Your task to perform on an android device: toggle data saver in the chrome app Image 0: 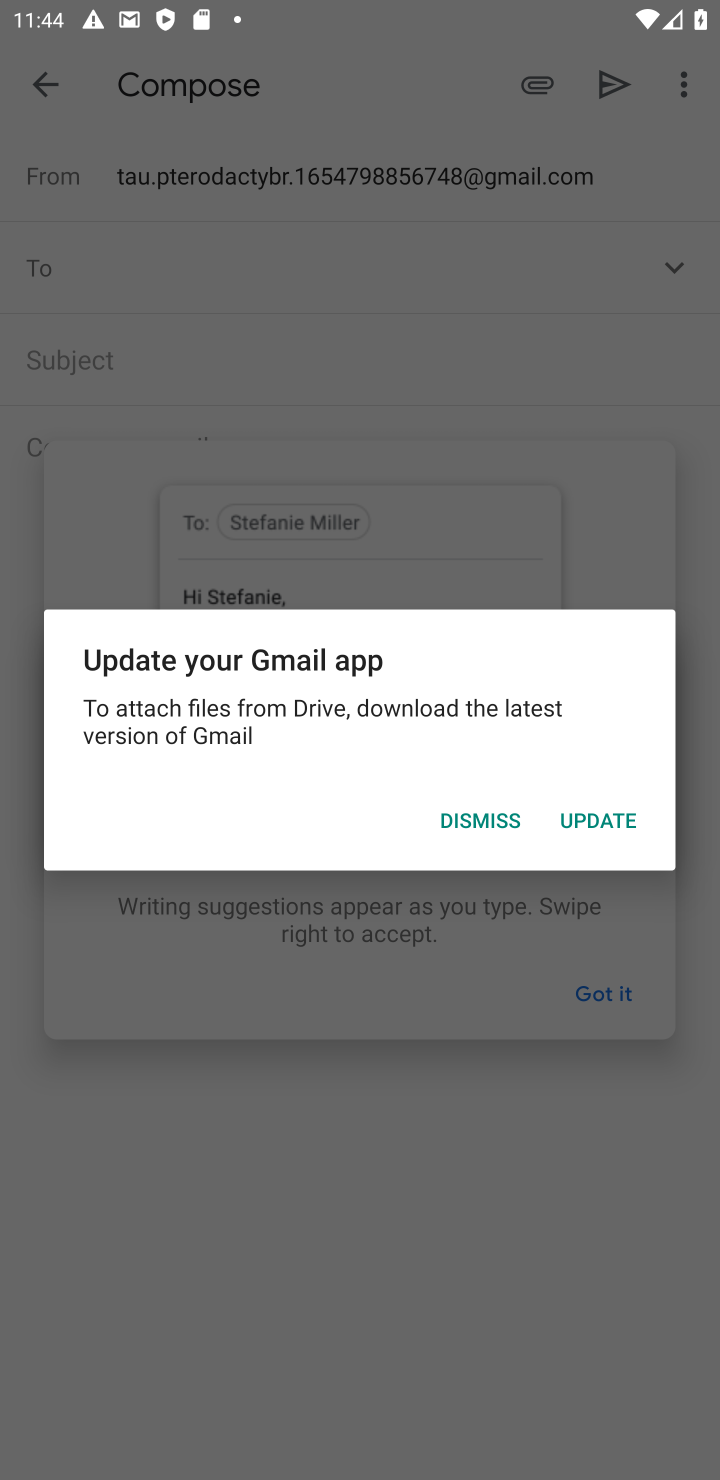
Step 0: press home button
Your task to perform on an android device: toggle data saver in the chrome app Image 1: 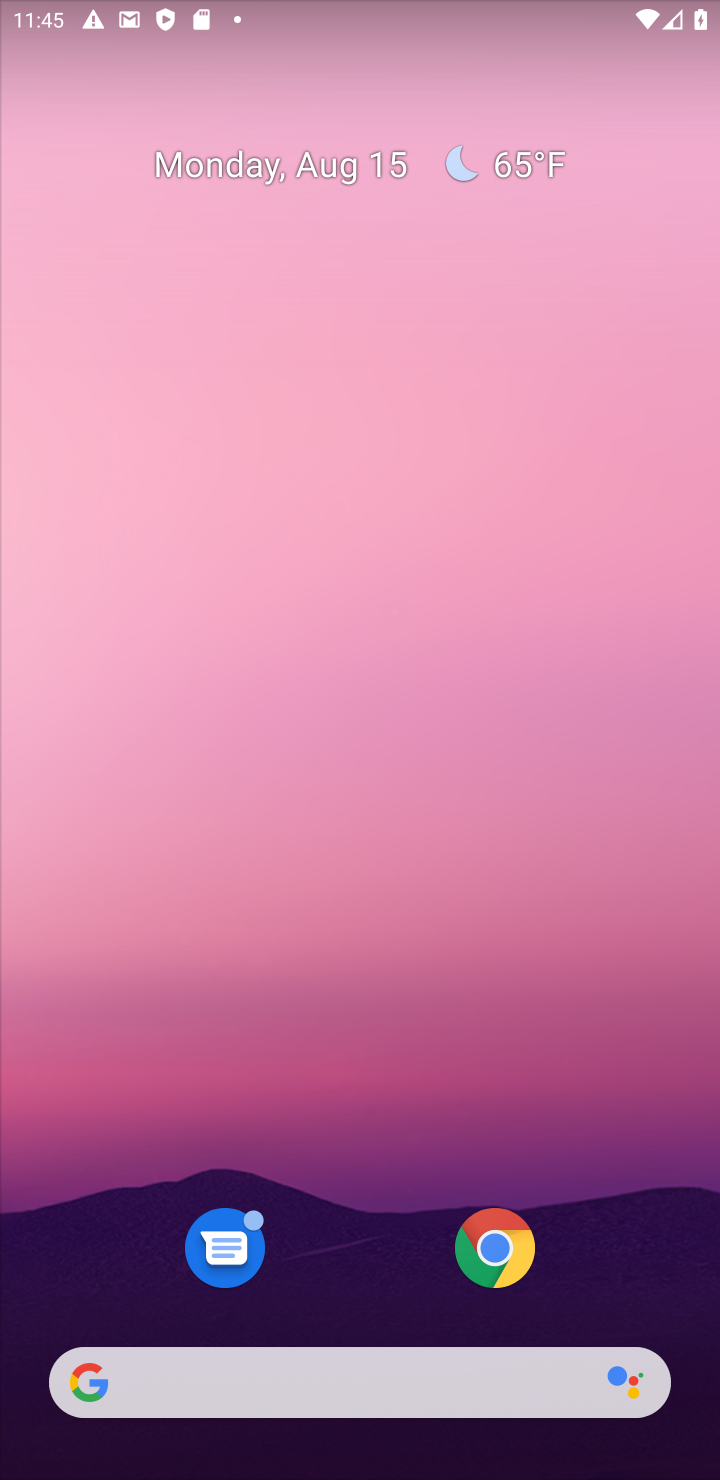
Step 1: click (481, 1225)
Your task to perform on an android device: toggle data saver in the chrome app Image 2: 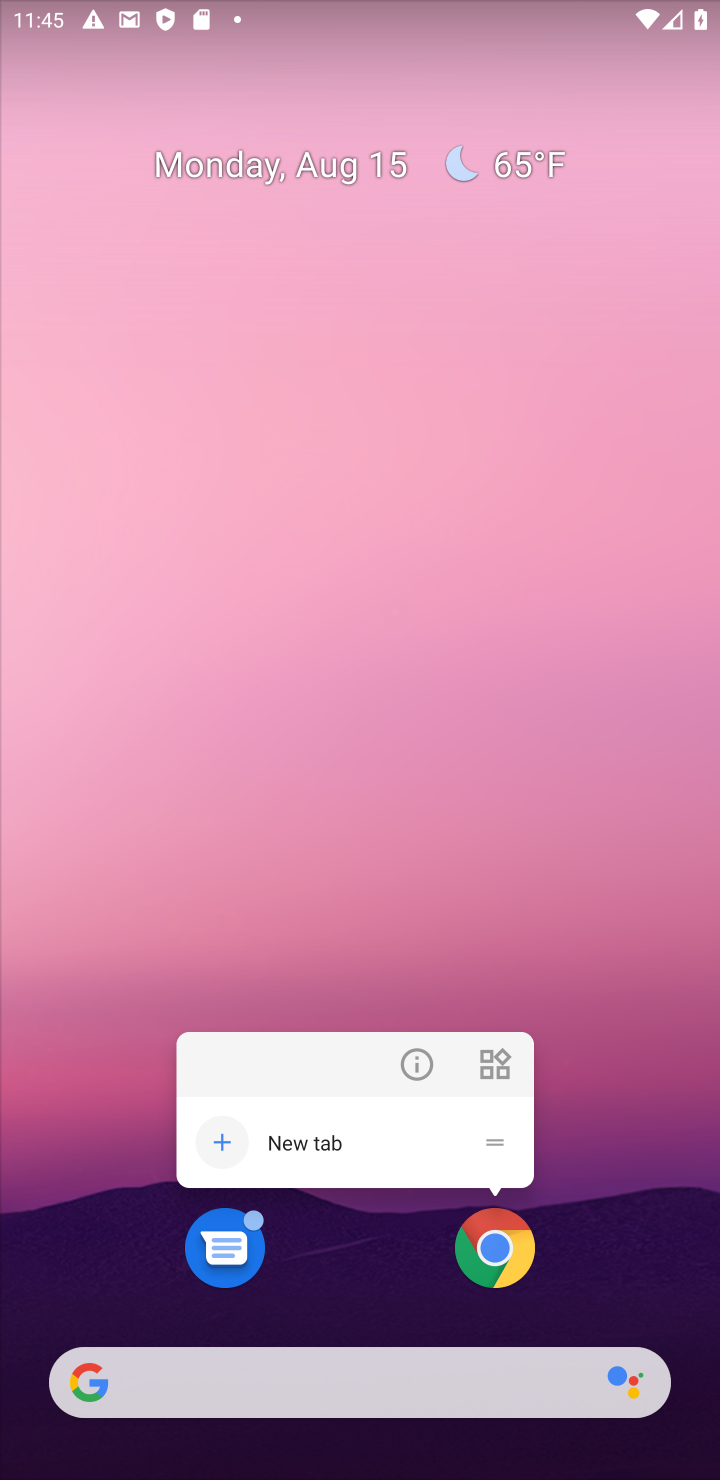
Step 2: click (481, 1225)
Your task to perform on an android device: toggle data saver in the chrome app Image 3: 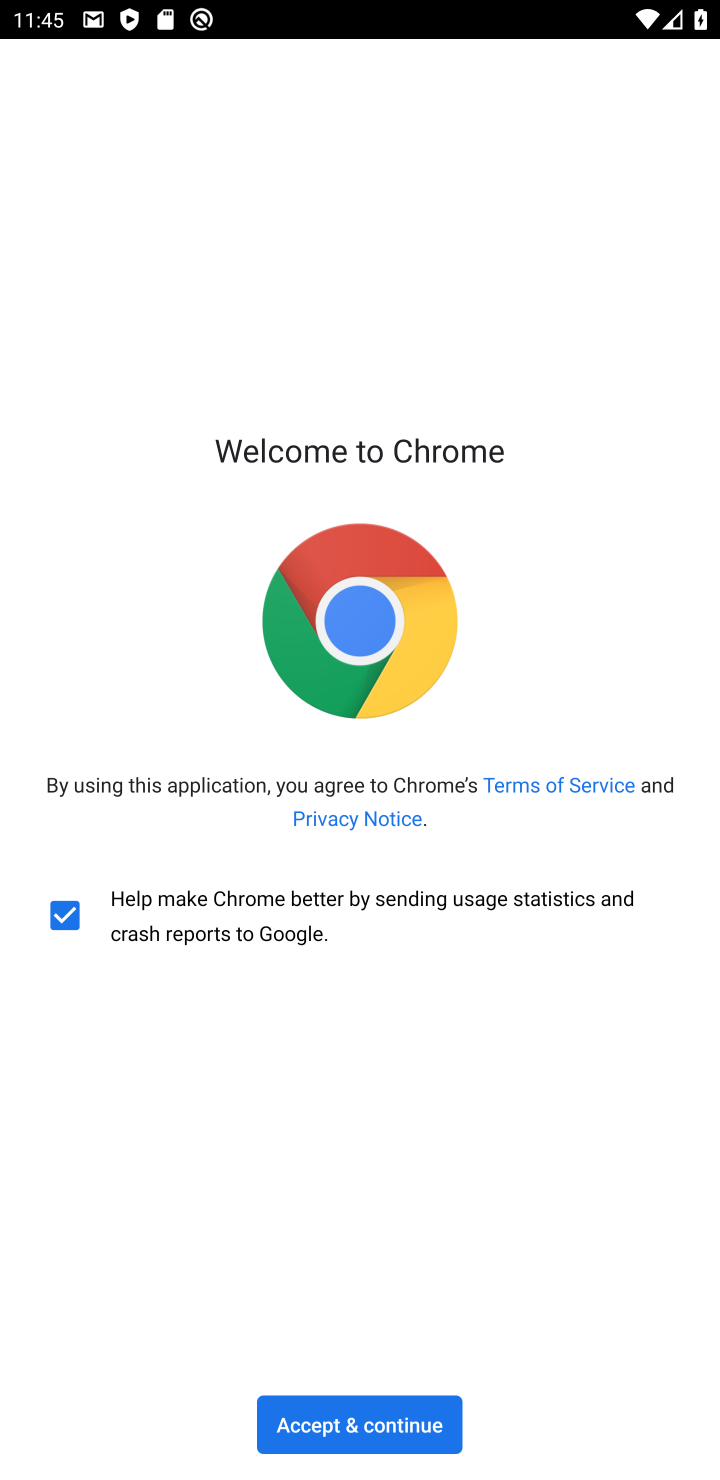
Step 3: click (314, 1395)
Your task to perform on an android device: toggle data saver in the chrome app Image 4: 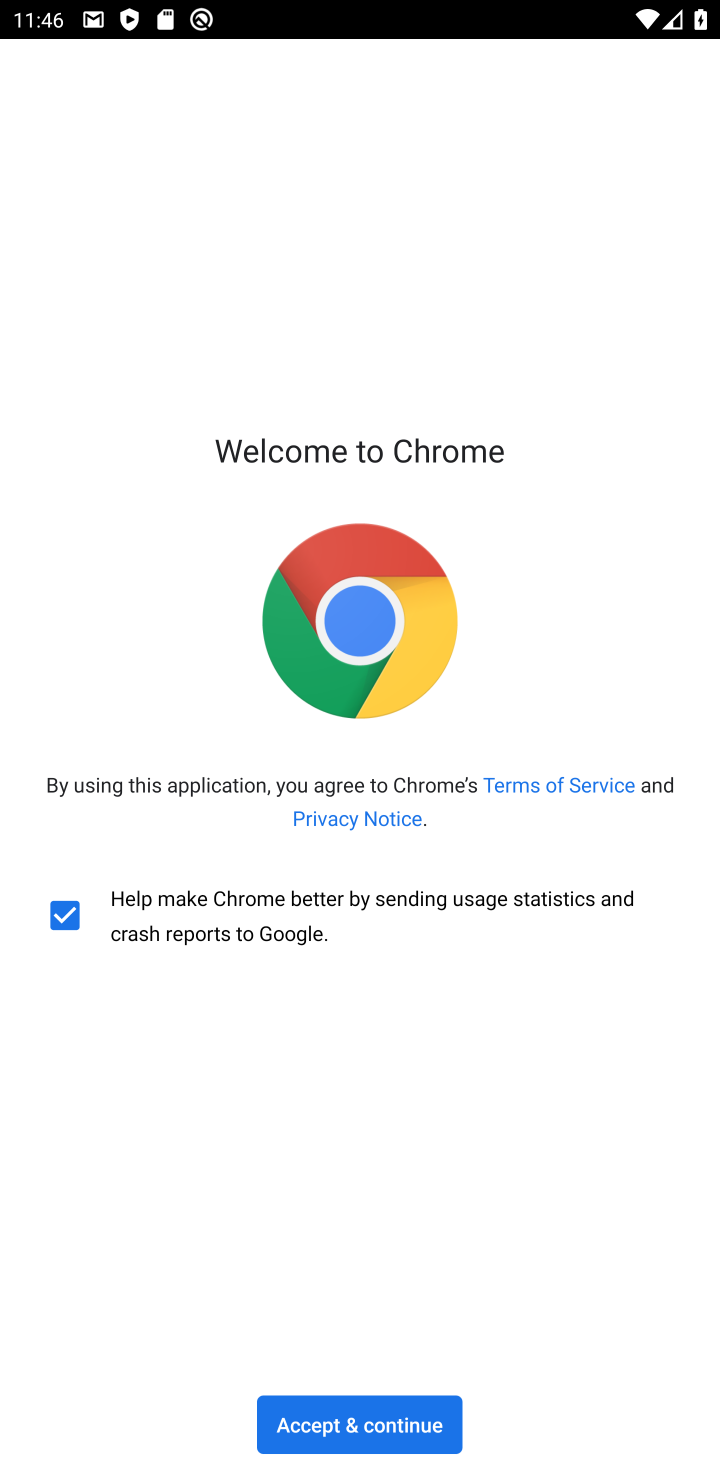
Step 4: click (317, 1427)
Your task to perform on an android device: toggle data saver in the chrome app Image 5: 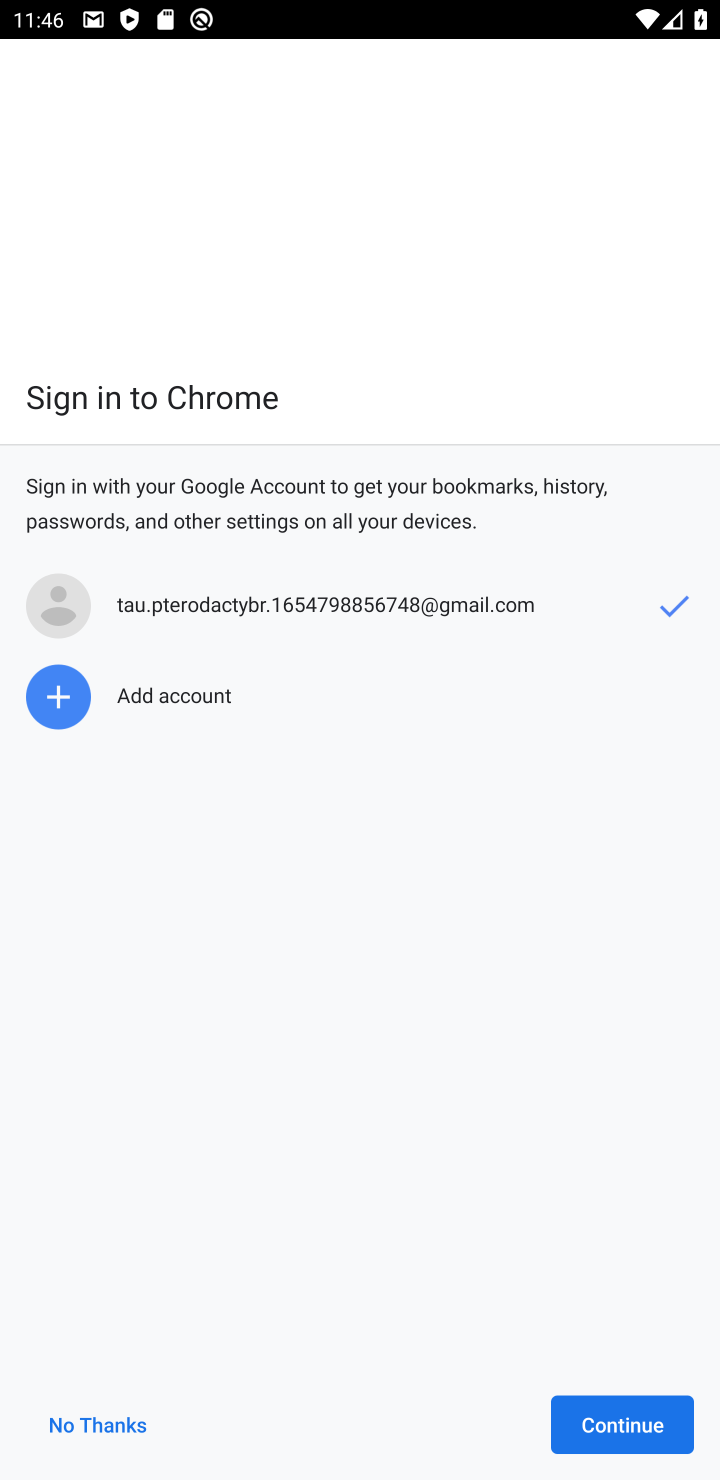
Step 5: click (566, 1435)
Your task to perform on an android device: toggle data saver in the chrome app Image 6: 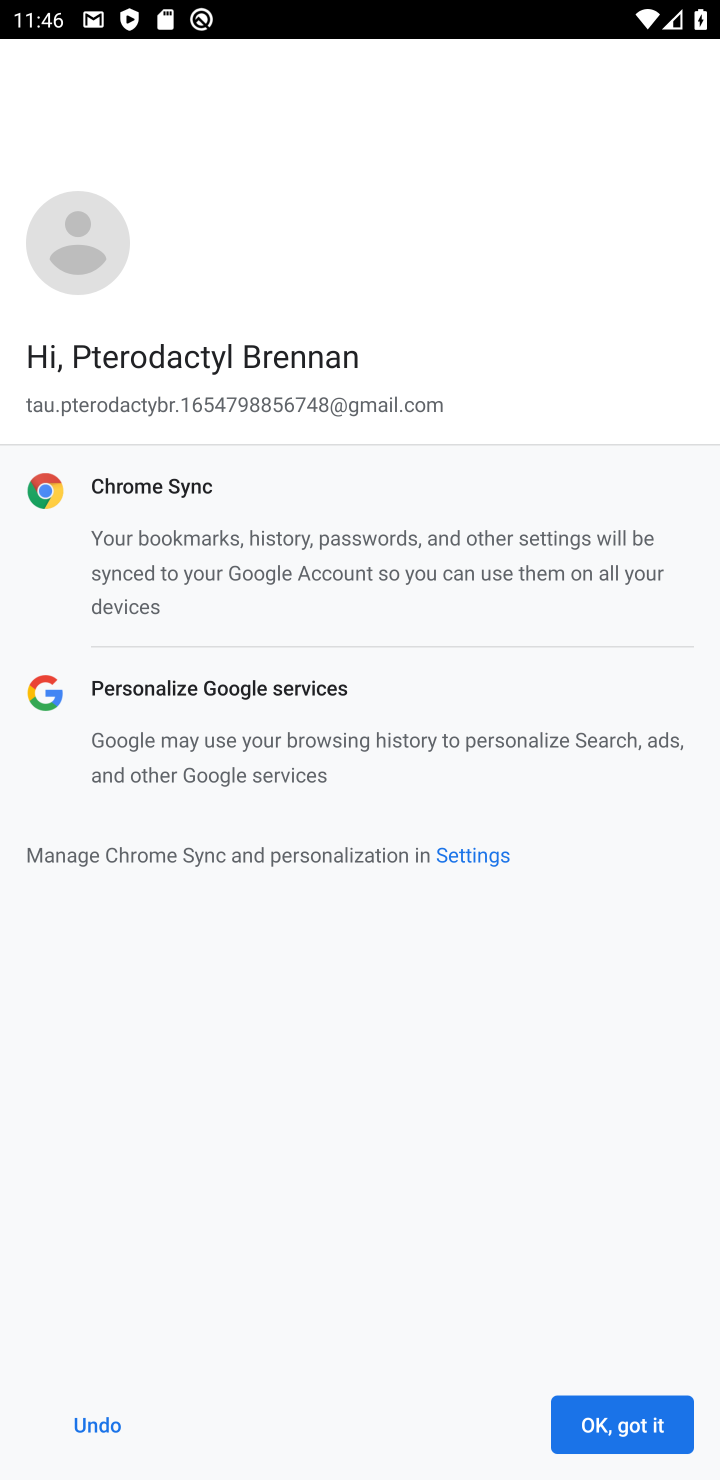
Step 6: click (670, 1410)
Your task to perform on an android device: toggle data saver in the chrome app Image 7: 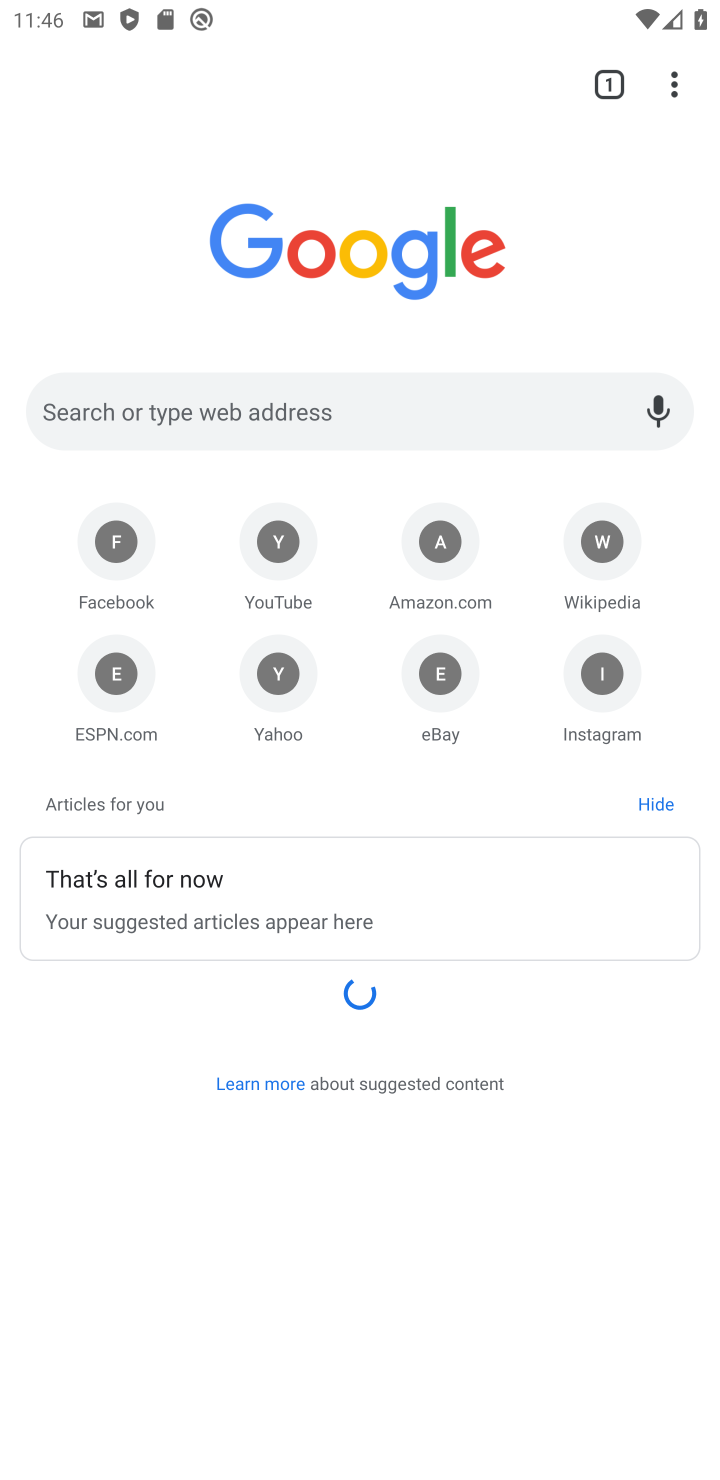
Step 7: click (674, 93)
Your task to perform on an android device: toggle data saver in the chrome app Image 8: 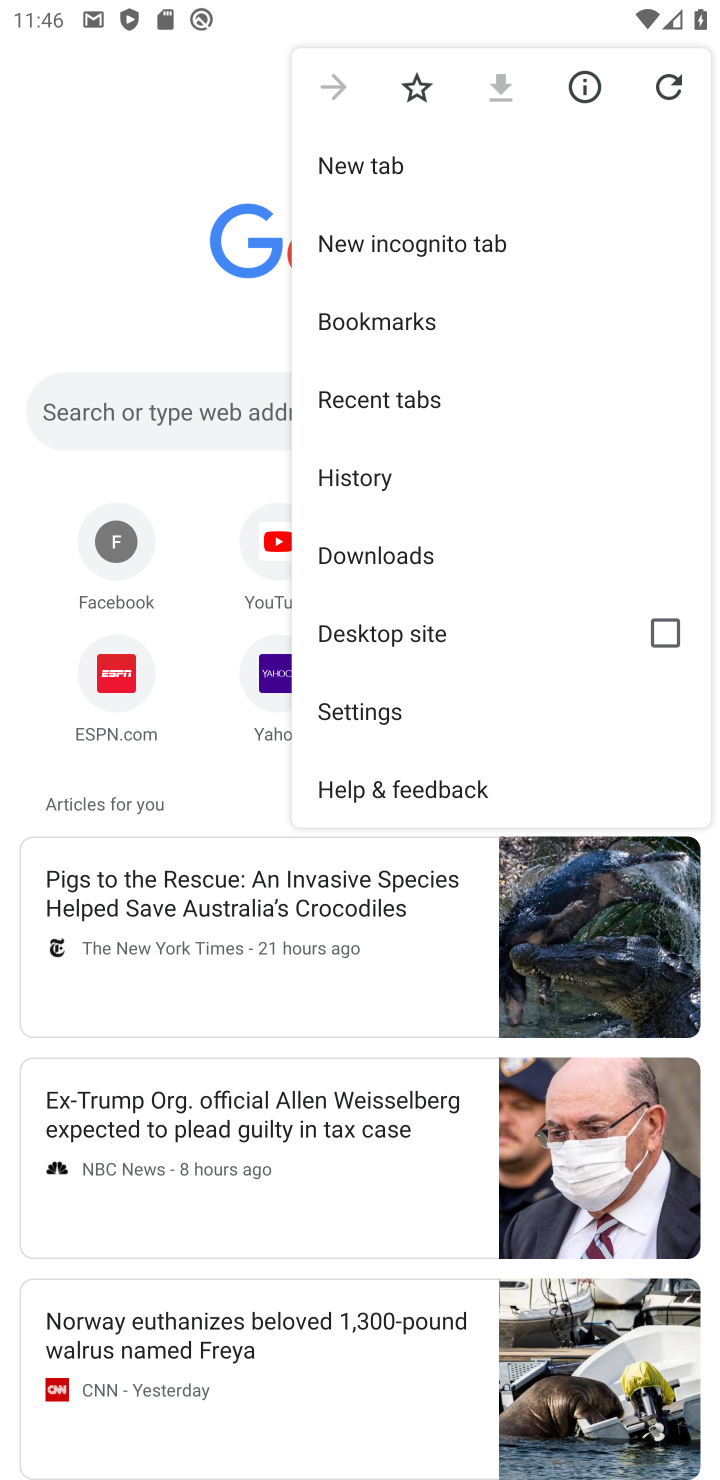
Step 8: click (458, 692)
Your task to perform on an android device: toggle data saver in the chrome app Image 9: 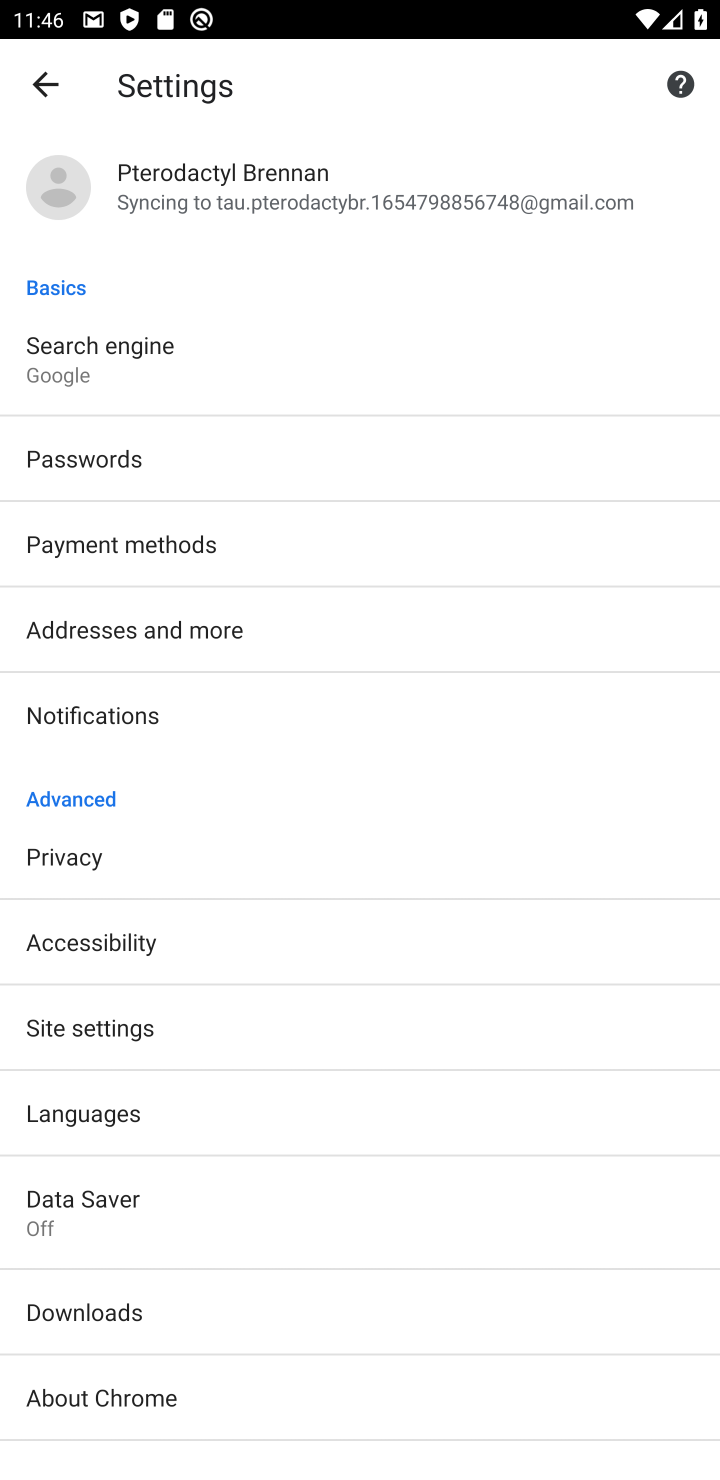
Step 9: click (169, 1249)
Your task to perform on an android device: toggle data saver in the chrome app Image 10: 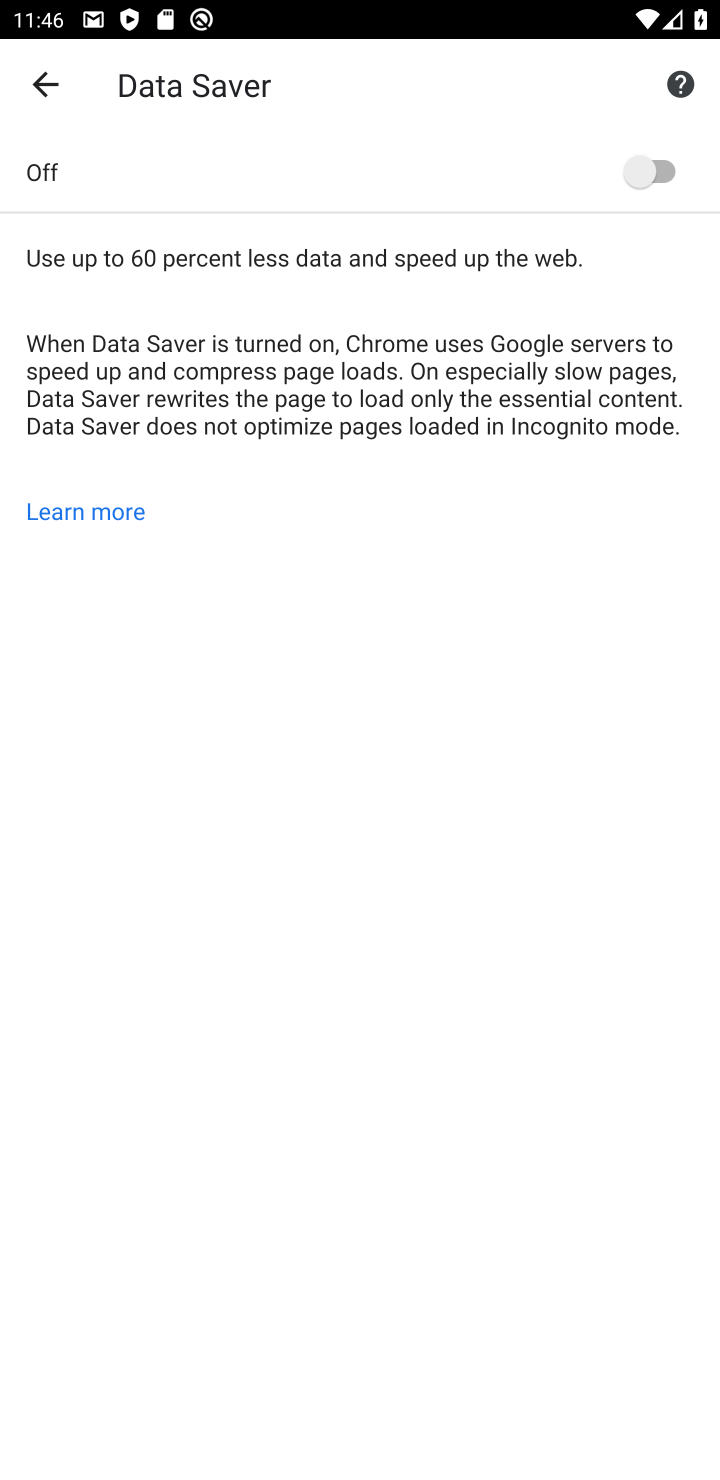
Step 10: click (619, 166)
Your task to perform on an android device: toggle data saver in the chrome app Image 11: 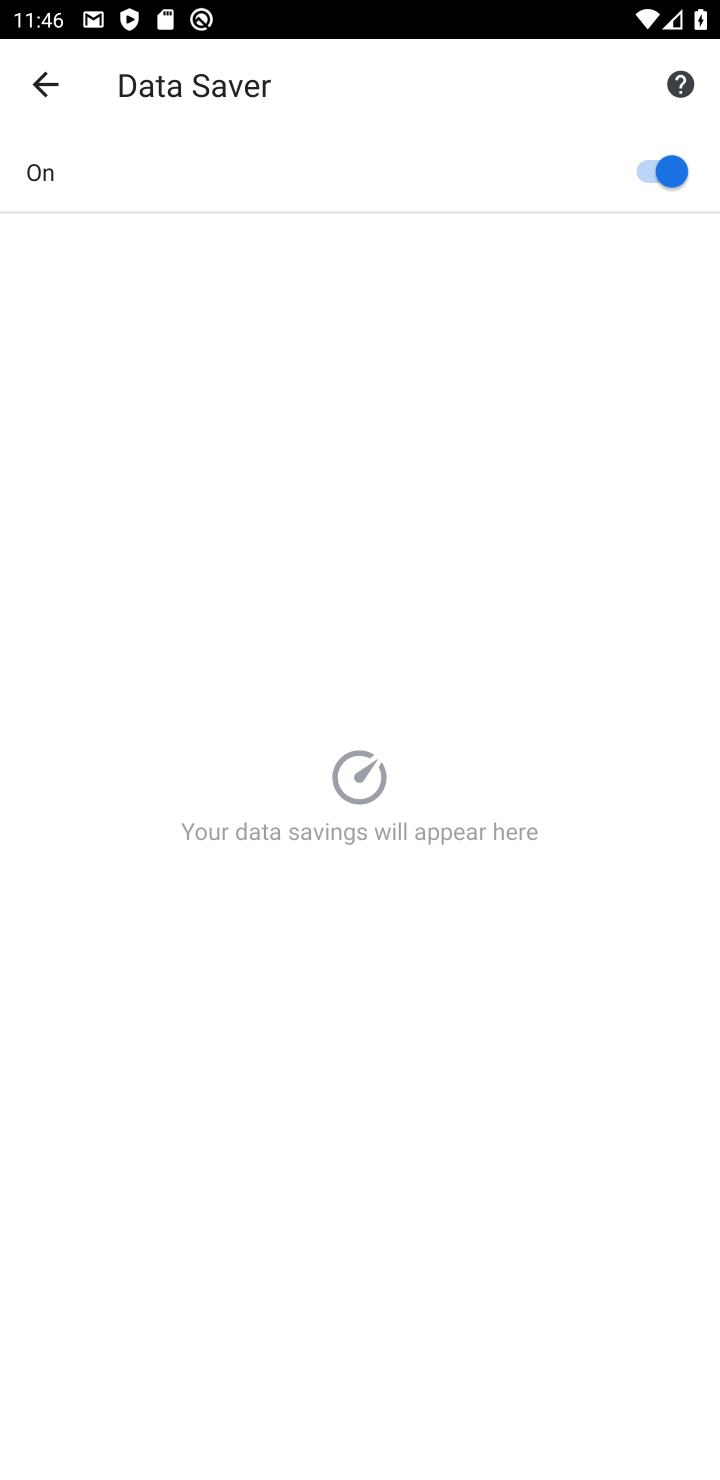
Step 11: task complete